Your task to perform on an android device: Open Google Chrome and open the bookmarks view Image 0: 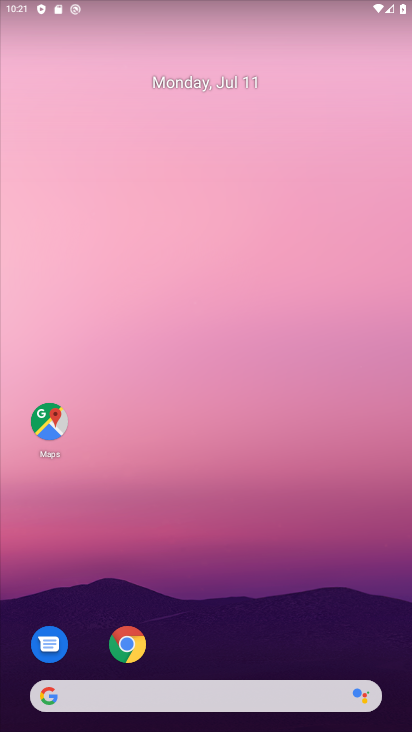
Step 0: drag from (229, 625) to (352, 220)
Your task to perform on an android device: Open Google Chrome and open the bookmarks view Image 1: 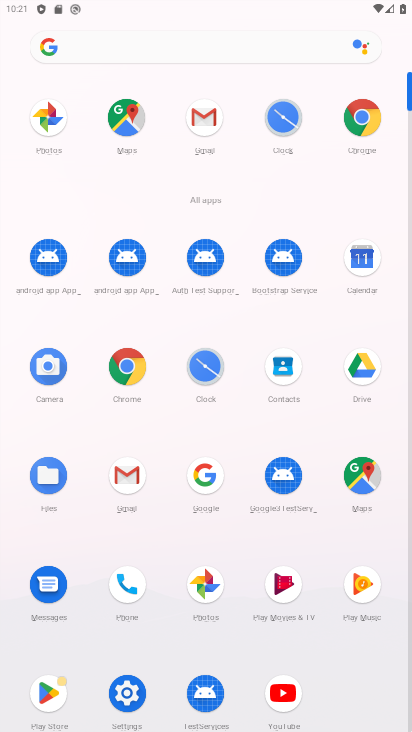
Step 1: click (132, 375)
Your task to perform on an android device: Open Google Chrome and open the bookmarks view Image 2: 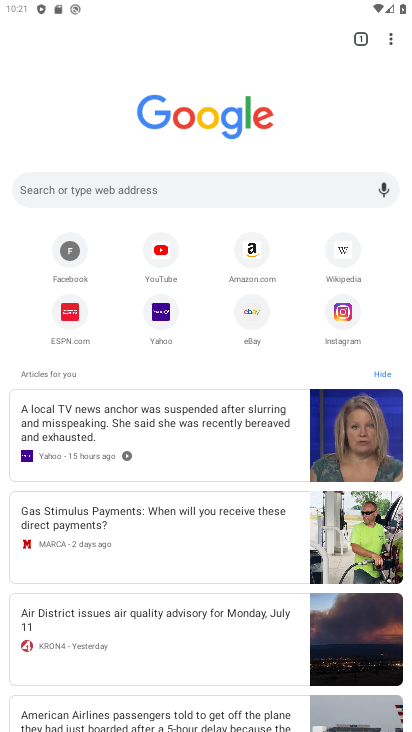
Step 2: task complete